Your task to perform on an android device: turn on the 12-hour format for clock Image 0: 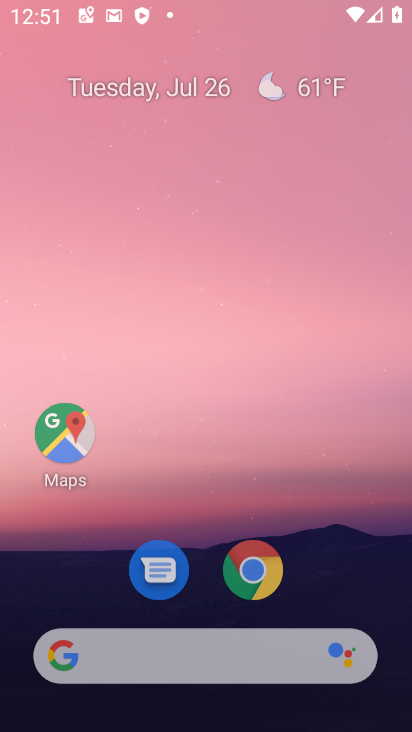
Step 0: press home button
Your task to perform on an android device: turn on the 12-hour format for clock Image 1: 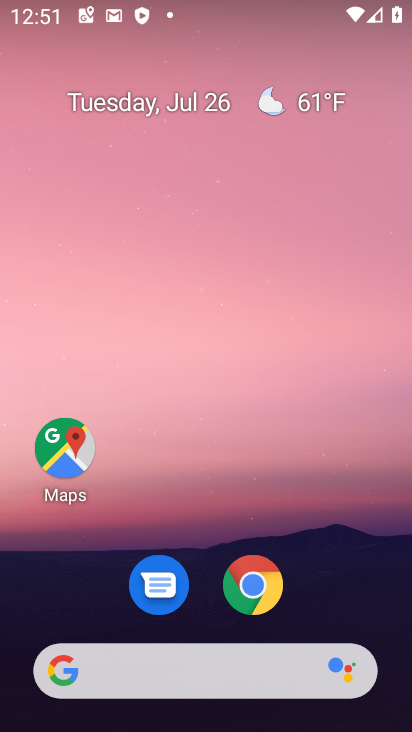
Step 1: drag from (151, 656) to (264, 146)
Your task to perform on an android device: turn on the 12-hour format for clock Image 2: 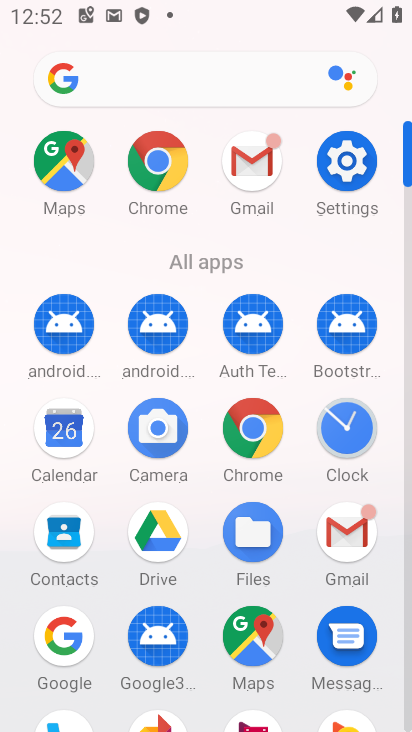
Step 2: drag from (214, 495) to (321, 218)
Your task to perform on an android device: turn on the 12-hour format for clock Image 3: 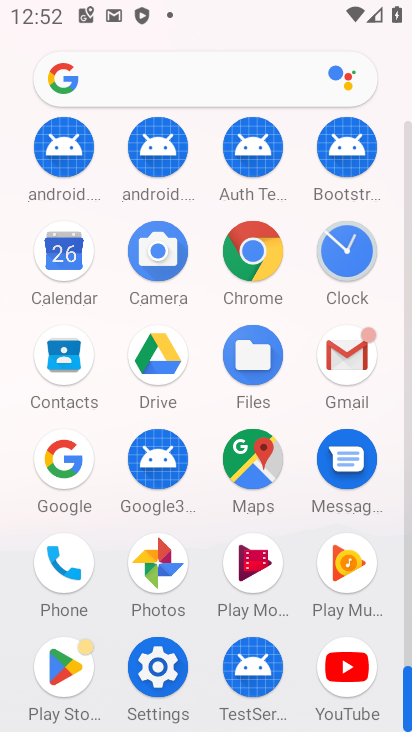
Step 3: click (343, 243)
Your task to perform on an android device: turn on the 12-hour format for clock Image 4: 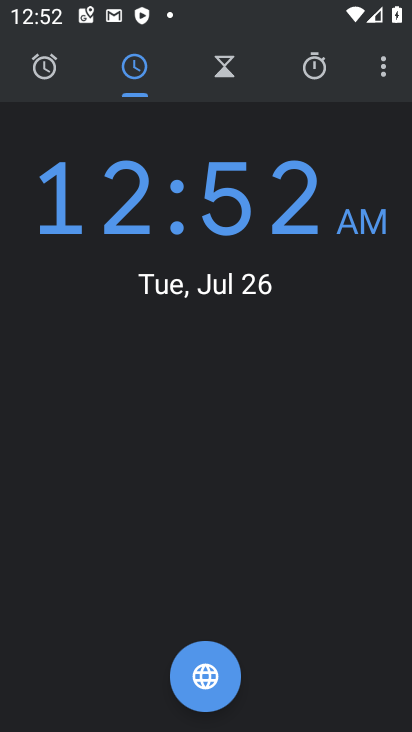
Step 4: click (386, 69)
Your task to perform on an android device: turn on the 12-hour format for clock Image 5: 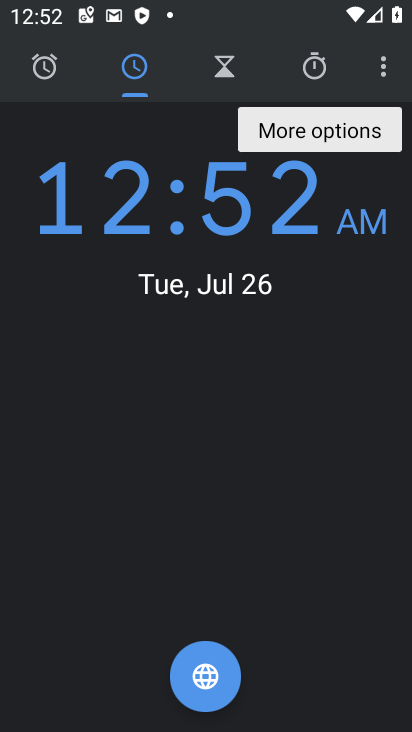
Step 5: click (386, 68)
Your task to perform on an android device: turn on the 12-hour format for clock Image 6: 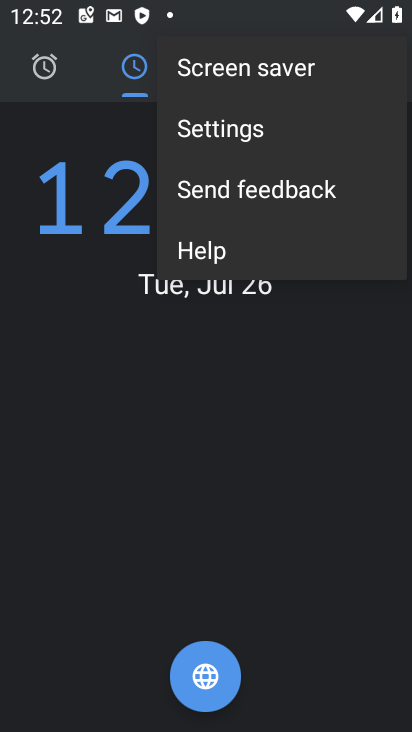
Step 6: click (237, 137)
Your task to perform on an android device: turn on the 12-hour format for clock Image 7: 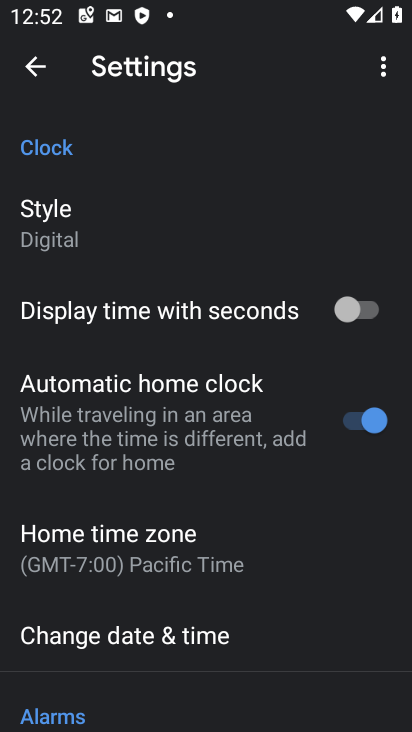
Step 7: drag from (194, 537) to (323, 194)
Your task to perform on an android device: turn on the 12-hour format for clock Image 8: 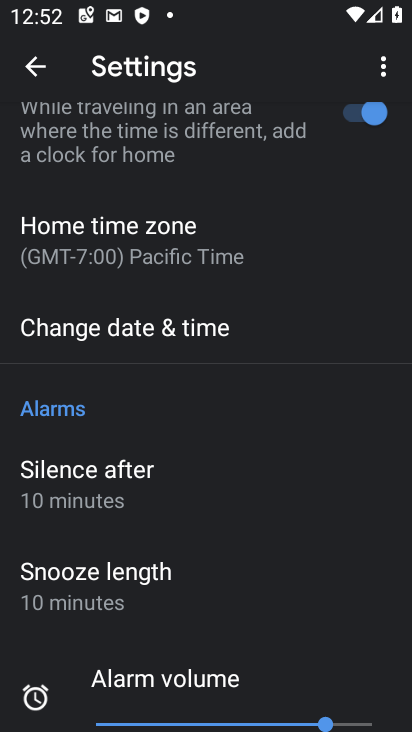
Step 8: click (204, 327)
Your task to perform on an android device: turn on the 12-hour format for clock Image 9: 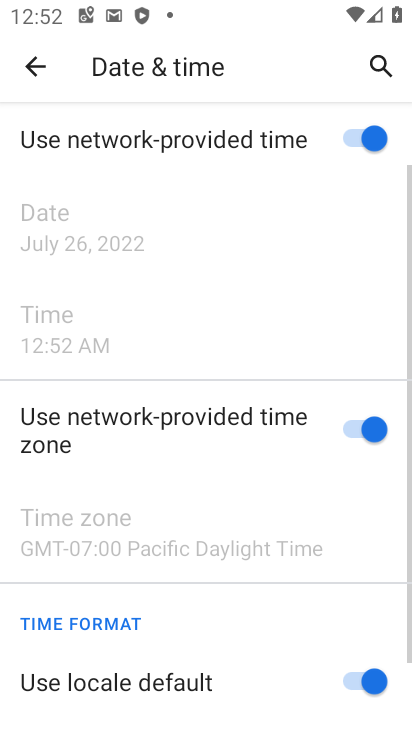
Step 9: task complete